Your task to perform on an android device: open app "Messages" Image 0: 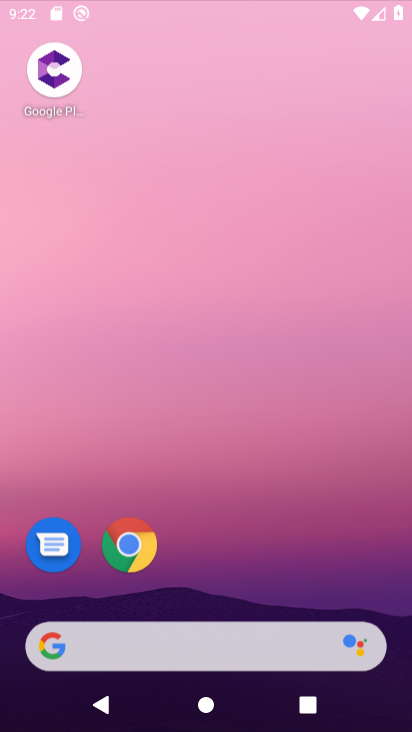
Step 0: press home button
Your task to perform on an android device: open app "Messages" Image 1: 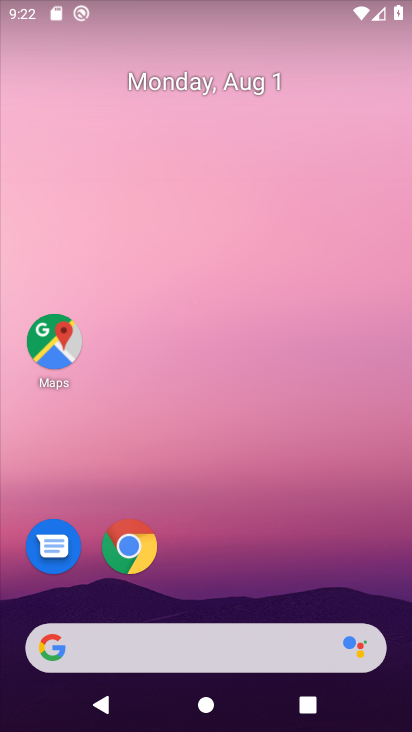
Step 1: drag from (208, 611) to (205, 6)
Your task to perform on an android device: open app "Messages" Image 2: 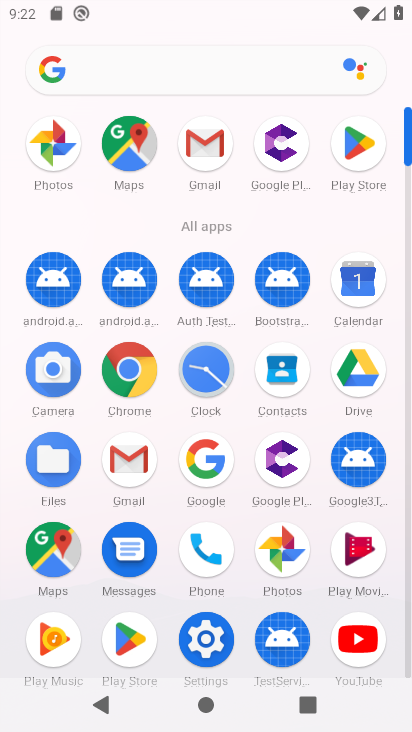
Step 2: click (351, 146)
Your task to perform on an android device: open app "Messages" Image 3: 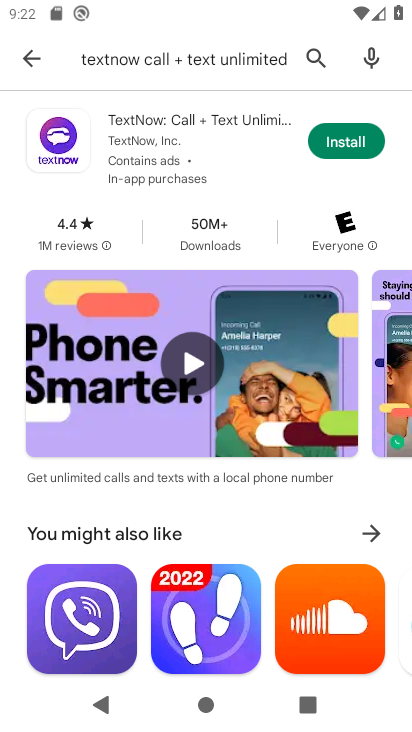
Step 3: click (310, 52)
Your task to perform on an android device: open app "Messages" Image 4: 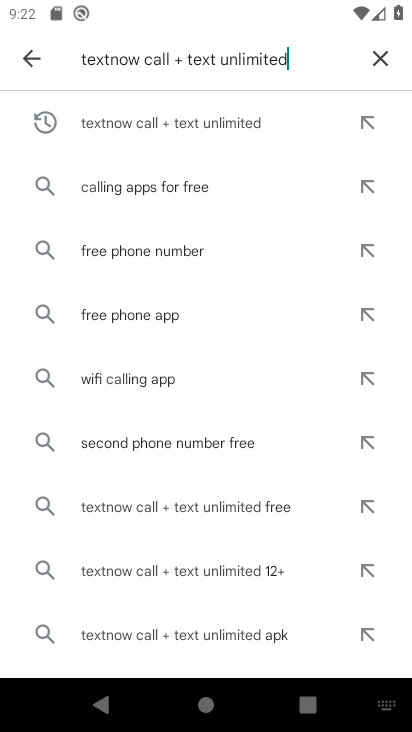
Step 4: click (372, 55)
Your task to perform on an android device: open app "Messages" Image 5: 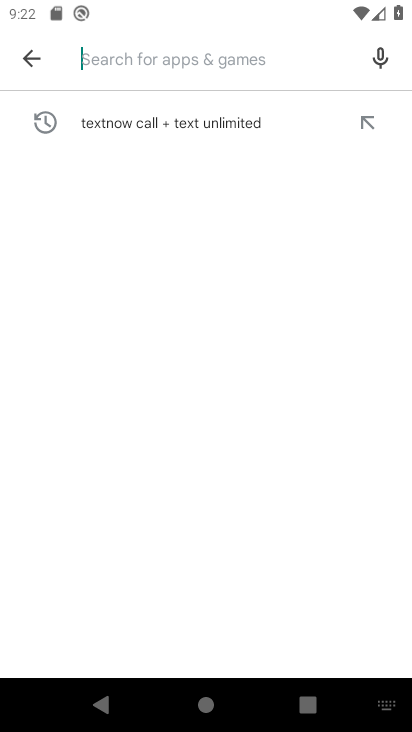
Step 5: type "Messages"
Your task to perform on an android device: open app "Messages" Image 6: 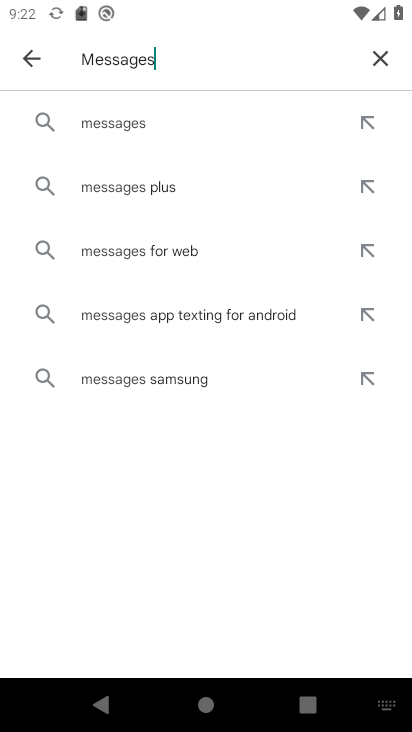
Step 6: click (135, 124)
Your task to perform on an android device: open app "Messages" Image 7: 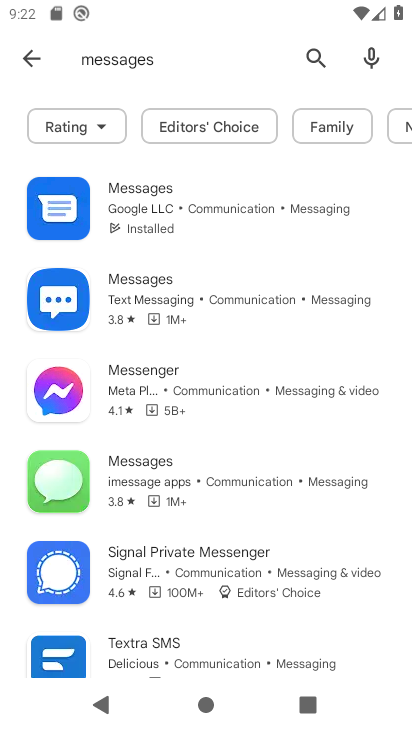
Step 7: click (141, 204)
Your task to perform on an android device: open app "Messages" Image 8: 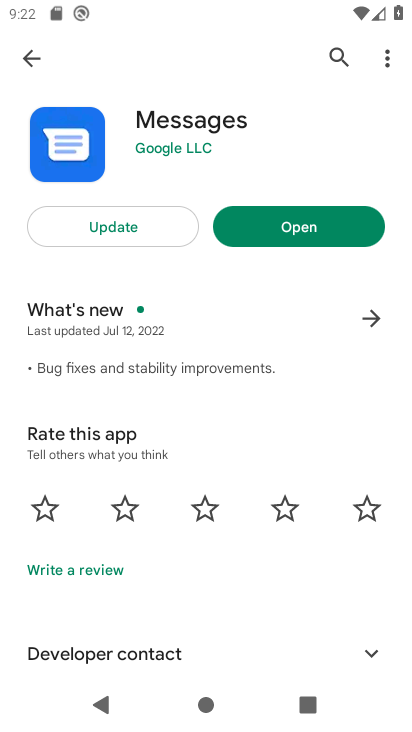
Step 8: click (300, 224)
Your task to perform on an android device: open app "Messages" Image 9: 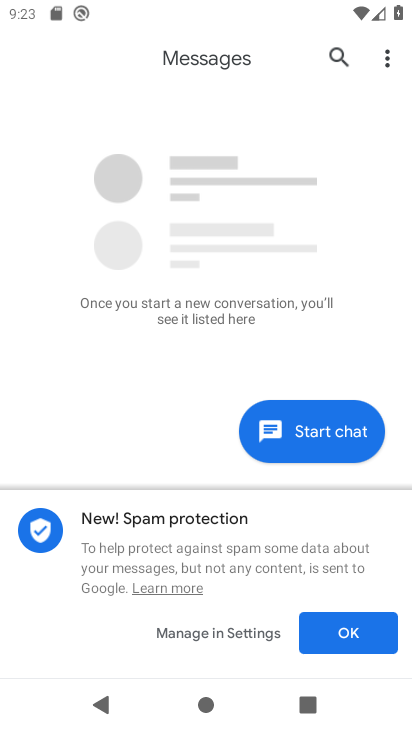
Step 9: task complete